Your task to perform on an android device: What's on my calendar today? Image 0: 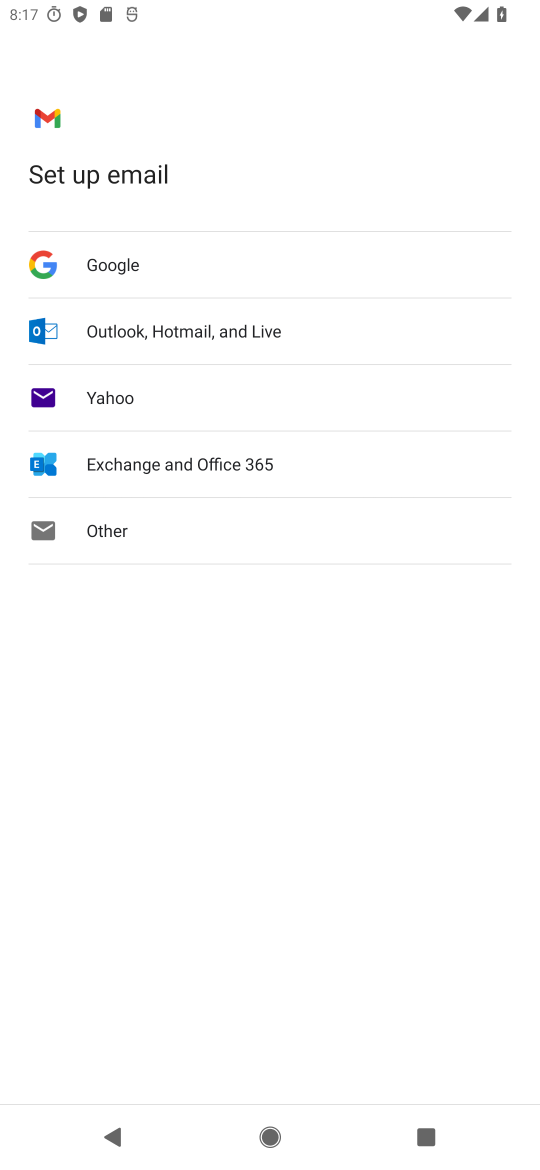
Step 0: press home button
Your task to perform on an android device: What's on my calendar today? Image 1: 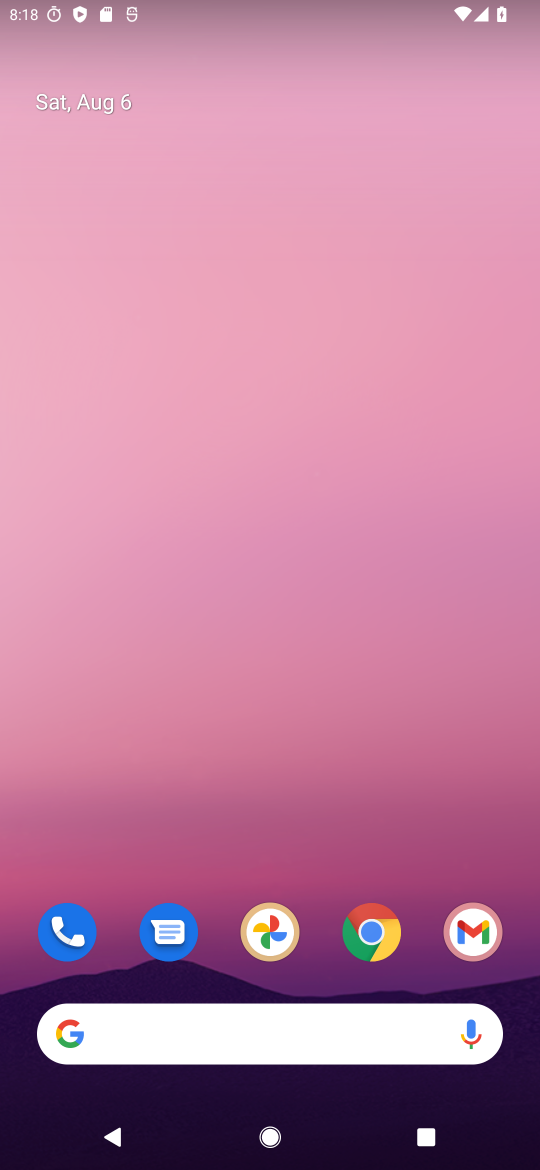
Step 1: drag from (266, 1028) to (352, 226)
Your task to perform on an android device: What's on my calendar today? Image 2: 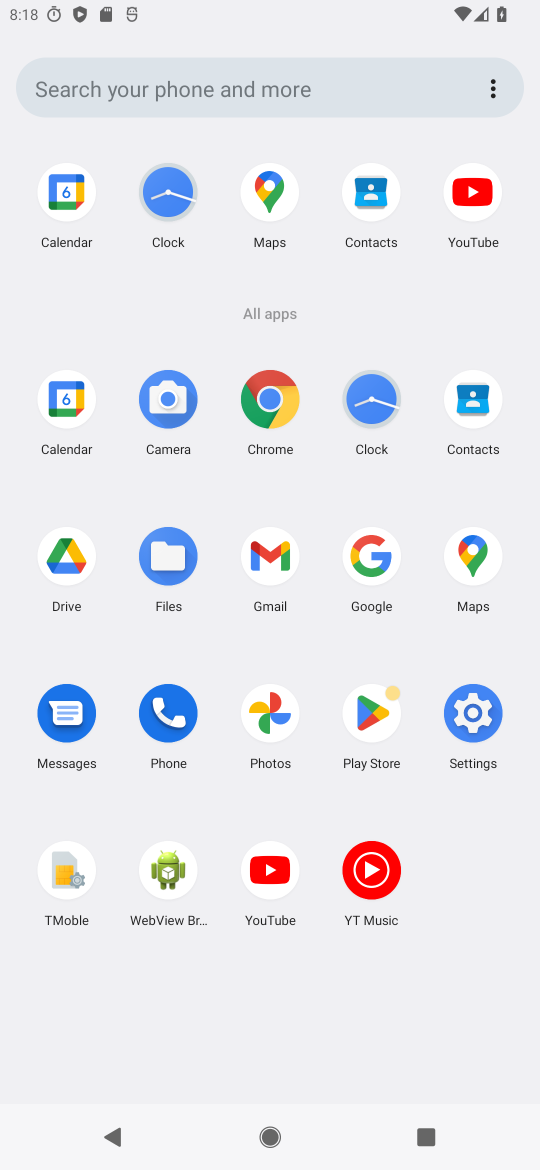
Step 2: click (62, 200)
Your task to perform on an android device: What's on my calendar today? Image 3: 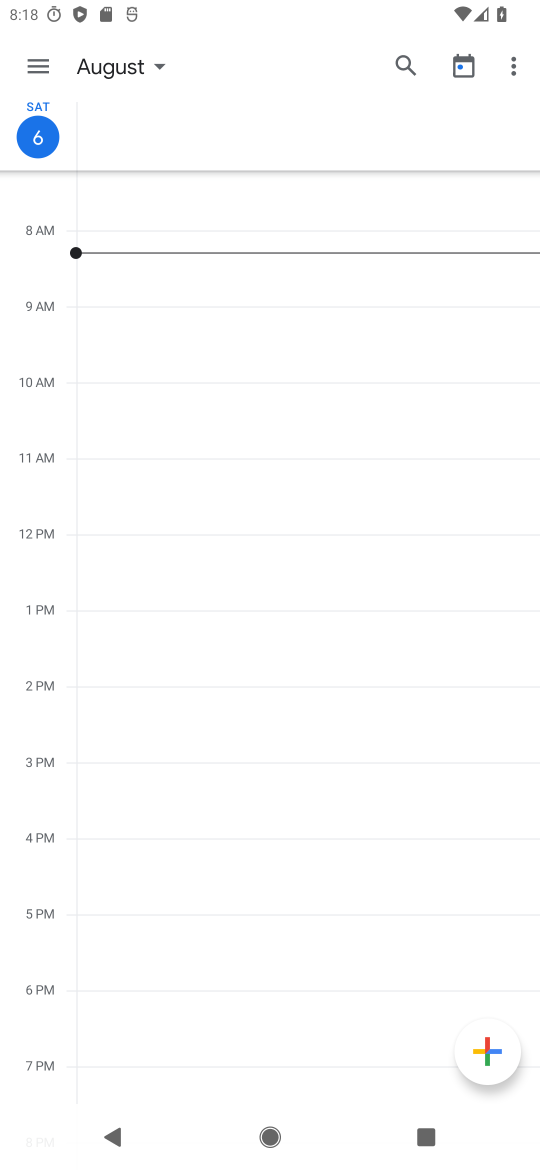
Step 3: task complete